Your task to perform on an android device: change the clock display to analog Image 0: 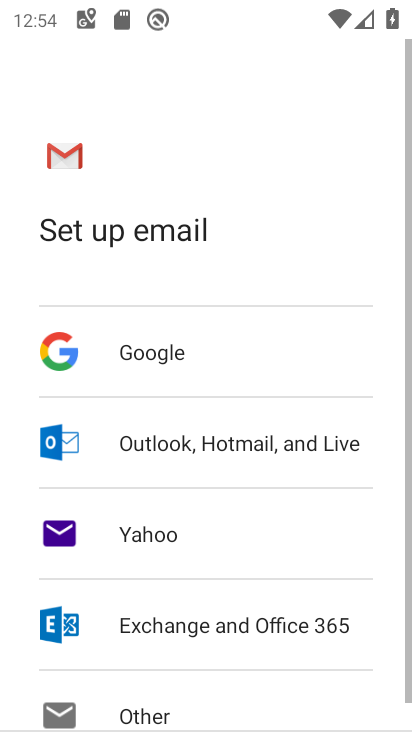
Step 0: press home button
Your task to perform on an android device: change the clock display to analog Image 1: 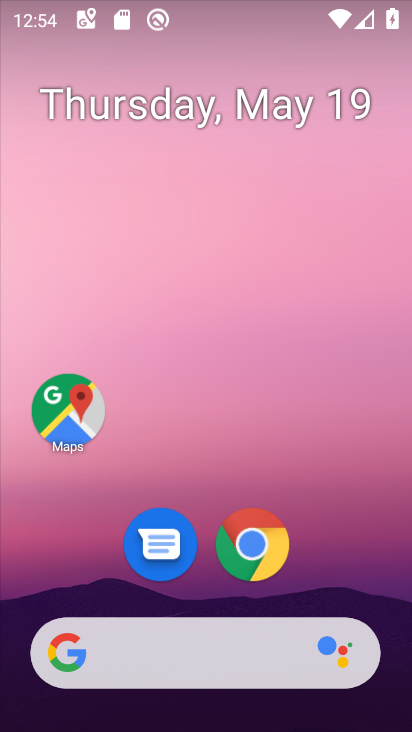
Step 1: drag from (351, 595) to (347, 109)
Your task to perform on an android device: change the clock display to analog Image 2: 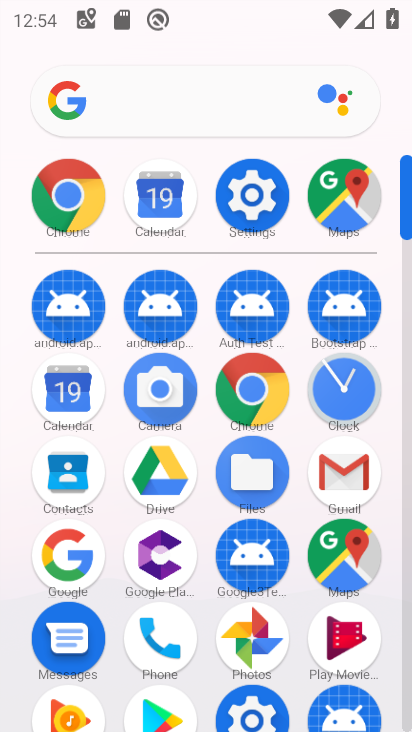
Step 2: click (325, 402)
Your task to perform on an android device: change the clock display to analog Image 3: 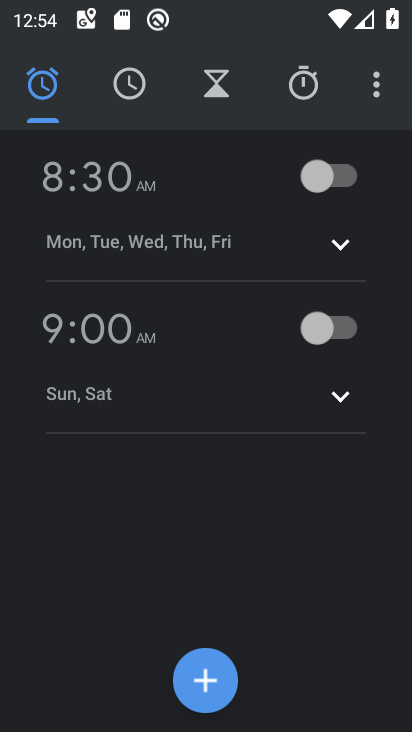
Step 3: click (380, 63)
Your task to perform on an android device: change the clock display to analog Image 4: 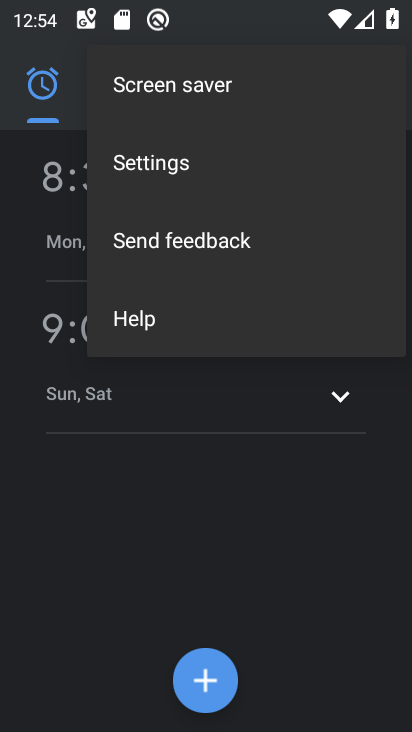
Step 4: click (213, 170)
Your task to perform on an android device: change the clock display to analog Image 5: 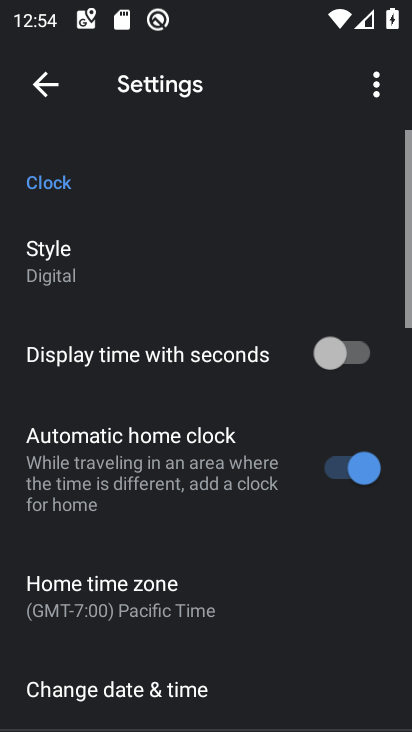
Step 5: click (205, 283)
Your task to perform on an android device: change the clock display to analog Image 6: 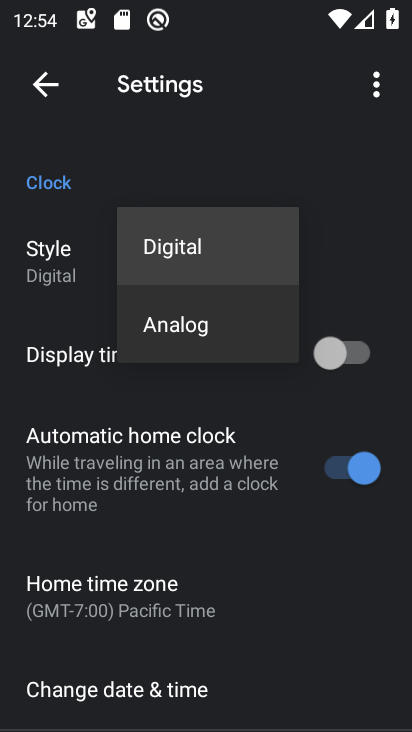
Step 6: click (192, 328)
Your task to perform on an android device: change the clock display to analog Image 7: 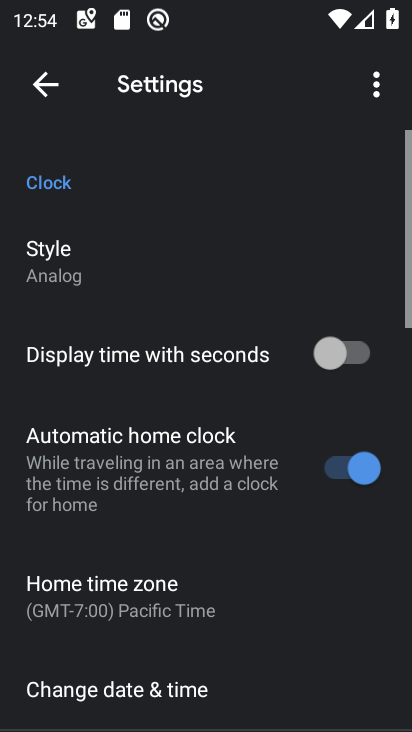
Step 7: task complete